Your task to perform on an android device: change notifications settings Image 0: 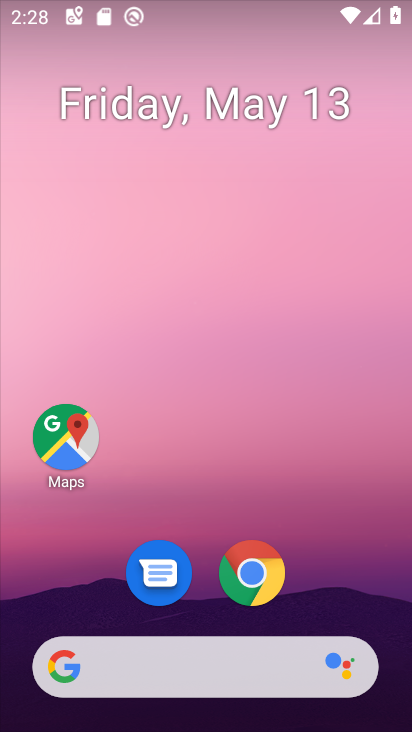
Step 0: drag from (369, 660) to (195, 155)
Your task to perform on an android device: change notifications settings Image 1: 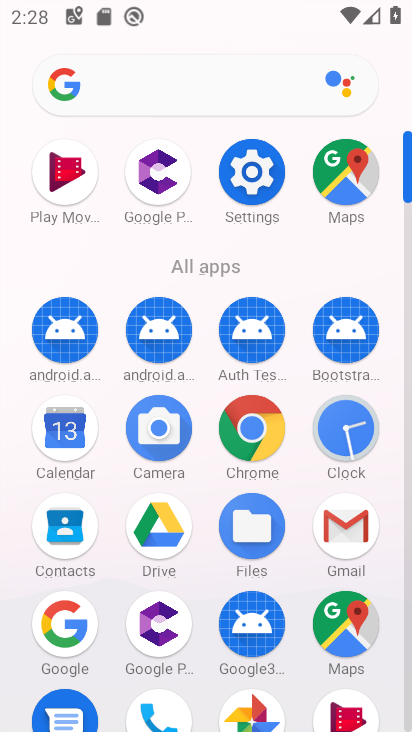
Step 1: drag from (342, 564) to (213, 95)
Your task to perform on an android device: change notifications settings Image 2: 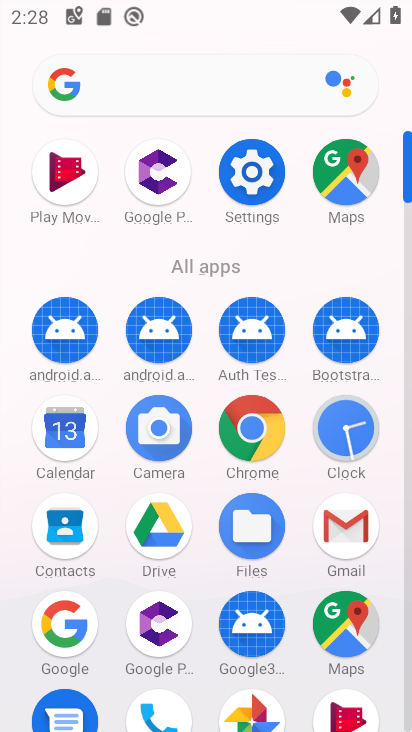
Step 2: click (247, 174)
Your task to perform on an android device: change notifications settings Image 3: 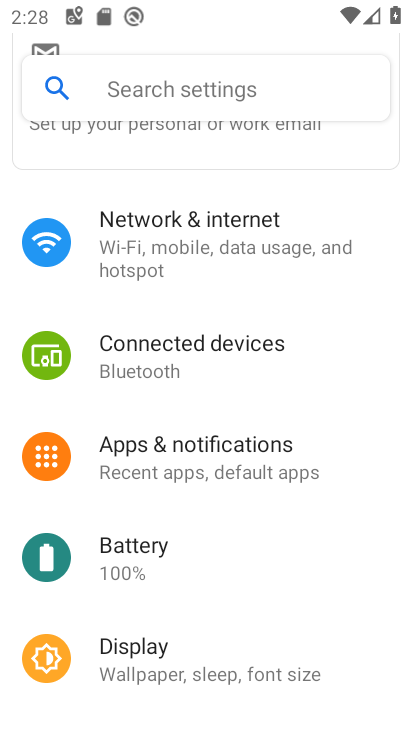
Step 3: click (179, 462)
Your task to perform on an android device: change notifications settings Image 4: 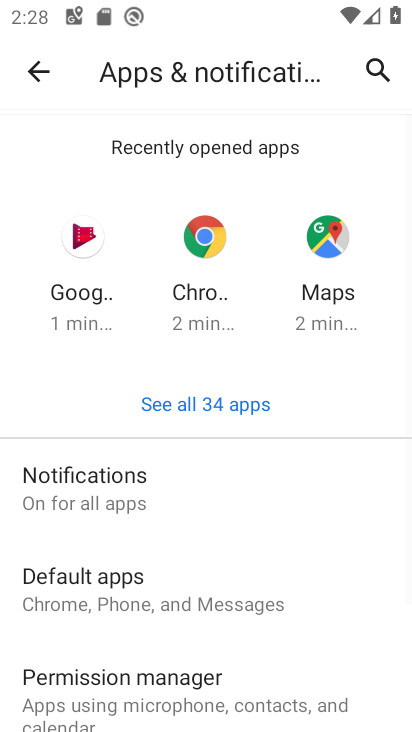
Step 4: drag from (130, 578) to (192, 147)
Your task to perform on an android device: change notifications settings Image 5: 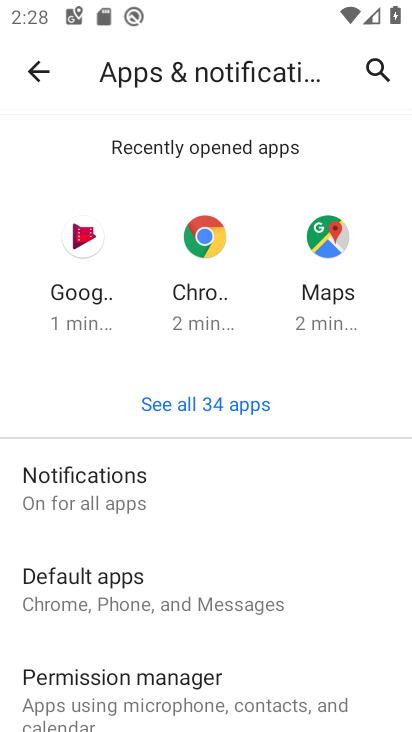
Step 5: drag from (223, 500) to (245, 46)
Your task to perform on an android device: change notifications settings Image 6: 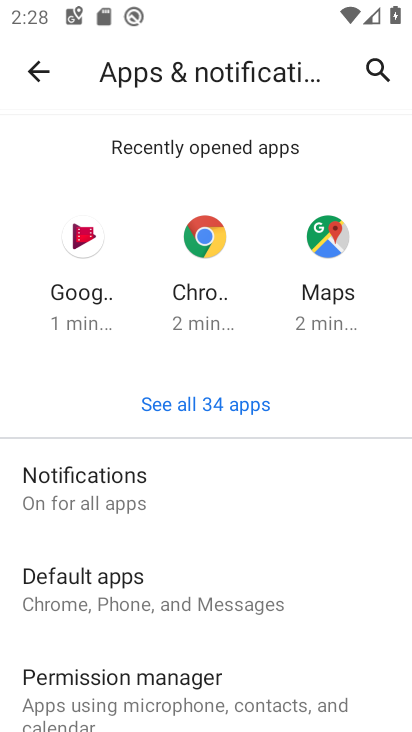
Step 6: drag from (191, 516) to (203, 95)
Your task to perform on an android device: change notifications settings Image 7: 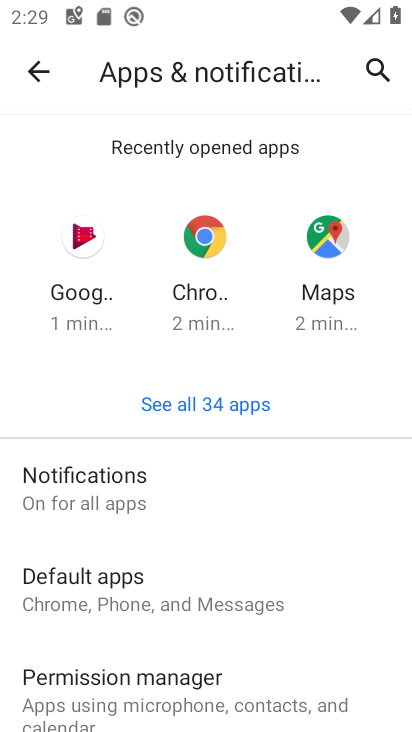
Step 7: click (62, 487)
Your task to perform on an android device: change notifications settings Image 8: 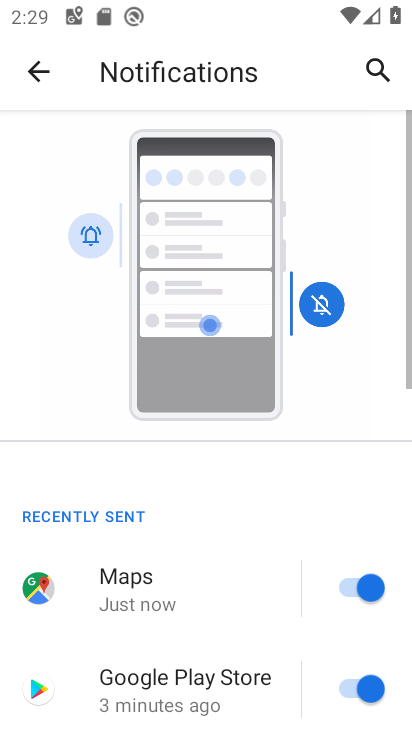
Step 8: drag from (132, 577) to (150, 92)
Your task to perform on an android device: change notifications settings Image 9: 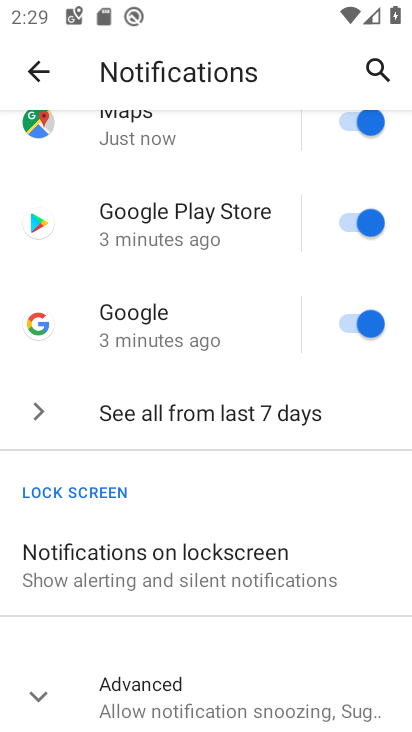
Step 9: click (170, 555)
Your task to perform on an android device: change notifications settings Image 10: 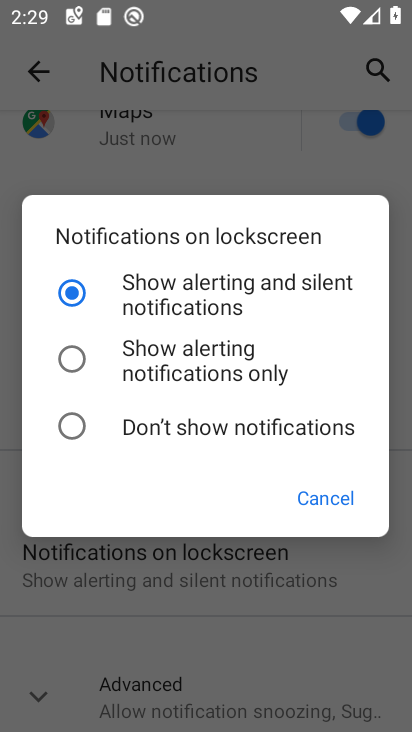
Step 10: click (215, 148)
Your task to perform on an android device: change notifications settings Image 11: 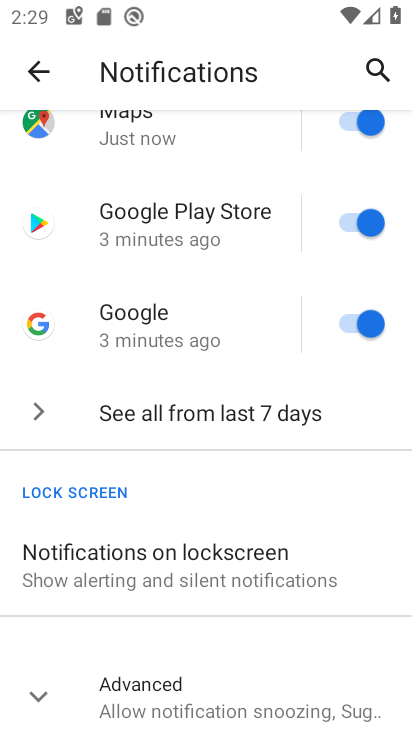
Step 11: click (317, 495)
Your task to perform on an android device: change notifications settings Image 12: 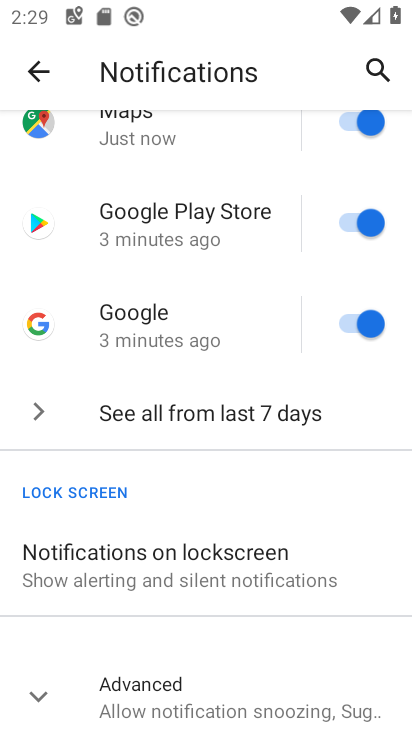
Step 12: drag from (207, 526) to (222, 590)
Your task to perform on an android device: change notifications settings Image 13: 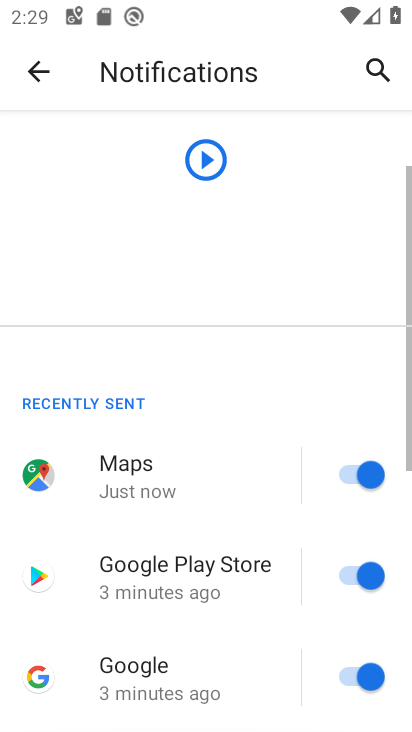
Step 13: drag from (227, 306) to (269, 652)
Your task to perform on an android device: change notifications settings Image 14: 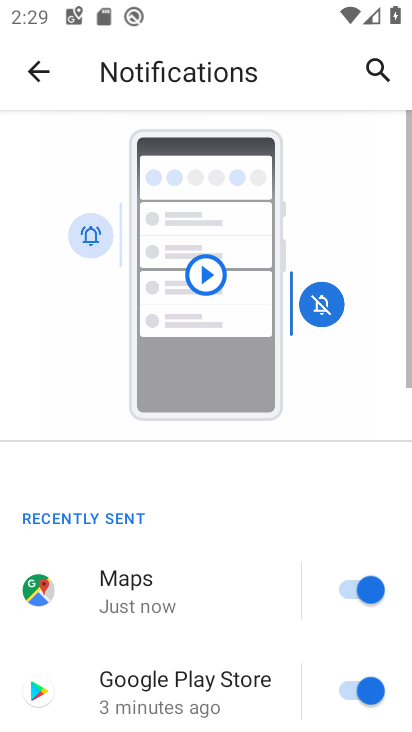
Step 14: drag from (161, 616) to (187, 138)
Your task to perform on an android device: change notifications settings Image 15: 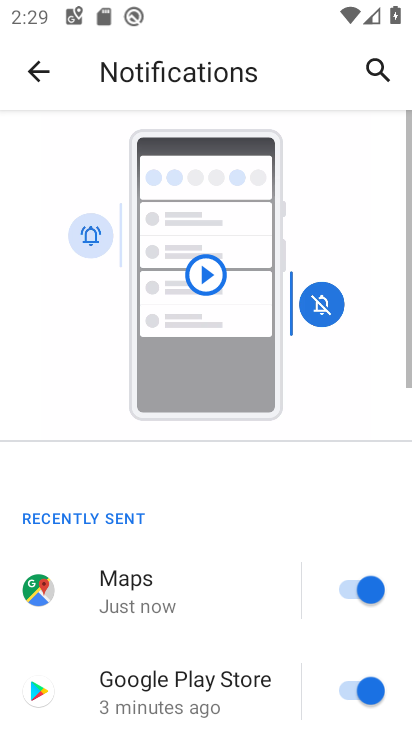
Step 15: drag from (211, 519) to (200, 220)
Your task to perform on an android device: change notifications settings Image 16: 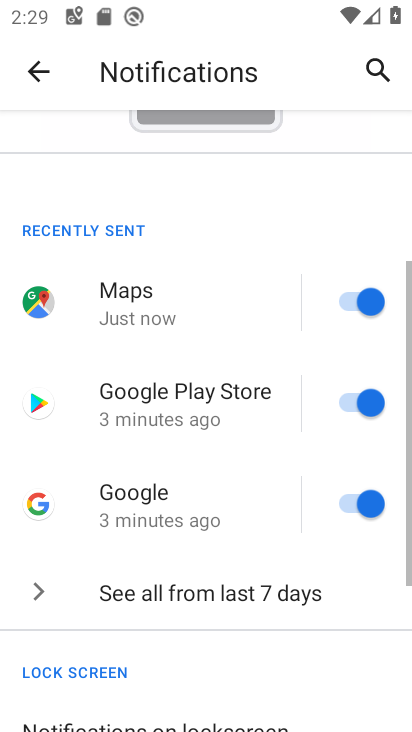
Step 16: drag from (212, 556) to (175, 99)
Your task to perform on an android device: change notifications settings Image 17: 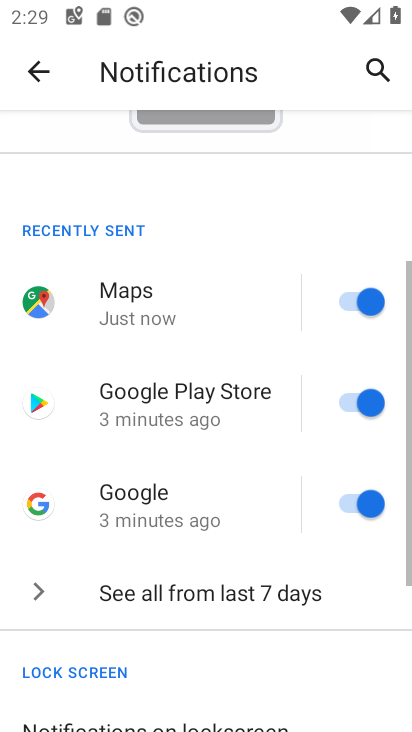
Step 17: drag from (254, 465) to (260, 96)
Your task to perform on an android device: change notifications settings Image 18: 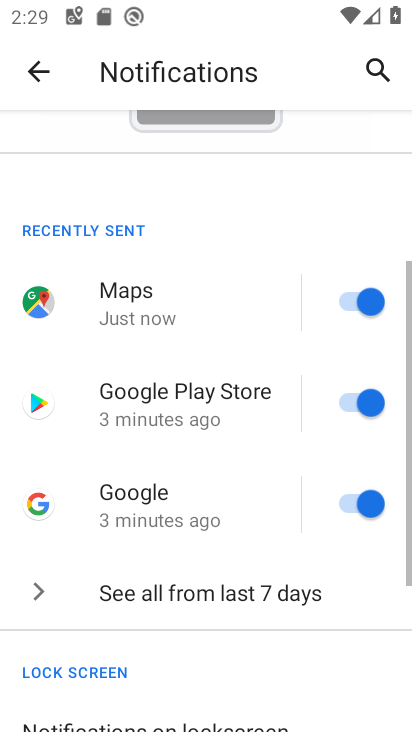
Step 18: drag from (70, 538) to (157, 90)
Your task to perform on an android device: change notifications settings Image 19: 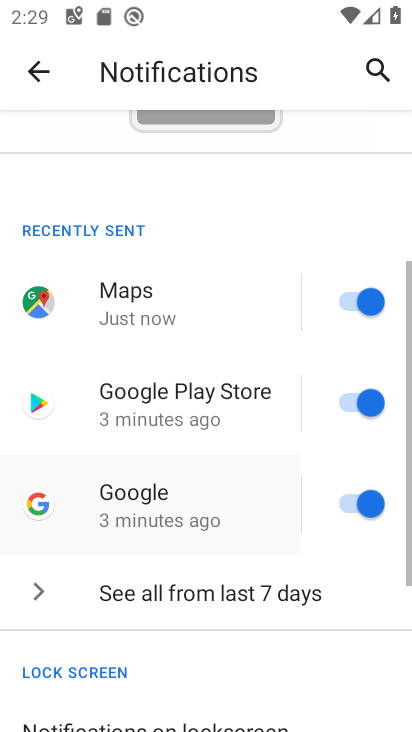
Step 19: drag from (121, 521) to (160, 4)
Your task to perform on an android device: change notifications settings Image 20: 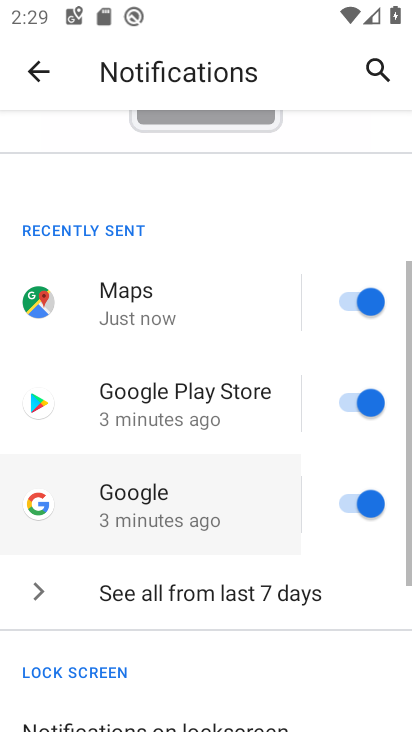
Step 20: drag from (152, 493) to (175, 58)
Your task to perform on an android device: change notifications settings Image 21: 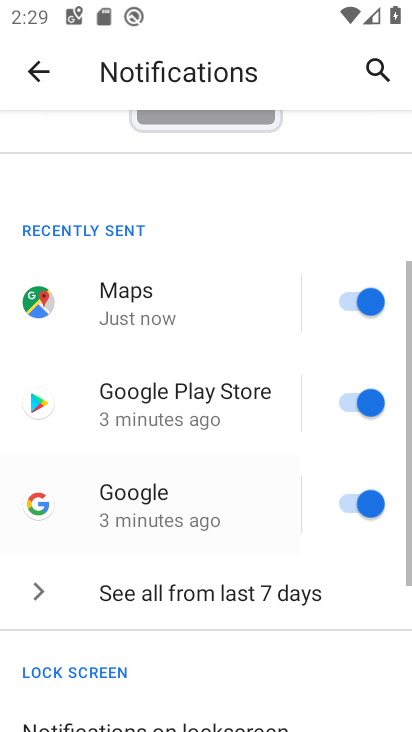
Step 21: drag from (128, 639) to (128, 5)
Your task to perform on an android device: change notifications settings Image 22: 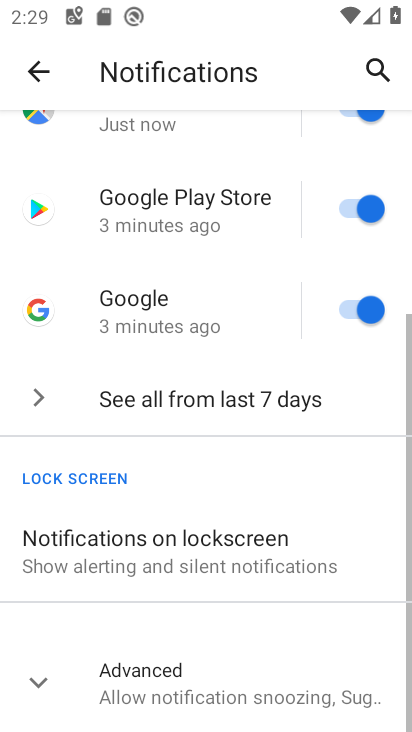
Step 22: click (137, 540)
Your task to perform on an android device: change notifications settings Image 23: 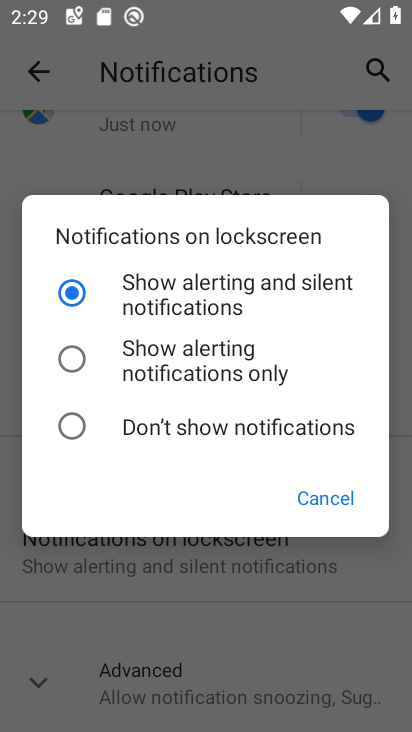
Step 23: click (66, 364)
Your task to perform on an android device: change notifications settings Image 24: 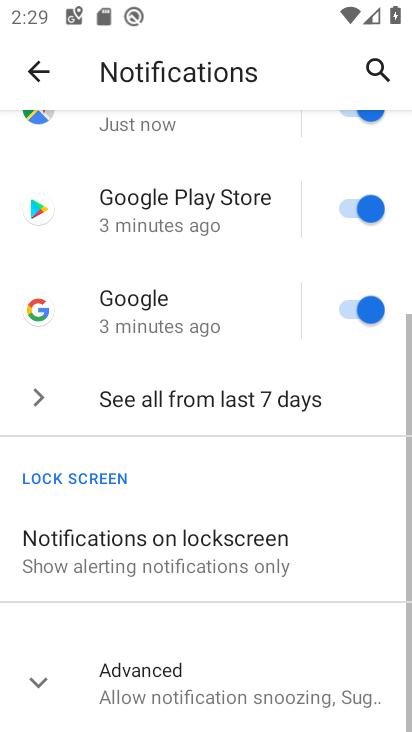
Step 24: drag from (264, 636) to (260, 169)
Your task to perform on an android device: change notifications settings Image 25: 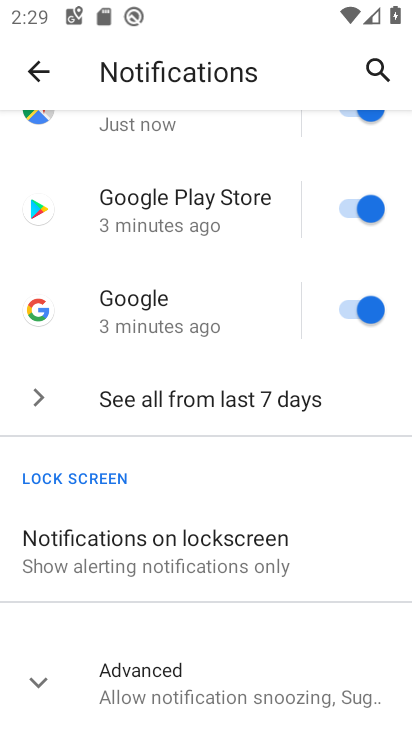
Step 25: drag from (192, 655) to (139, 233)
Your task to perform on an android device: change notifications settings Image 26: 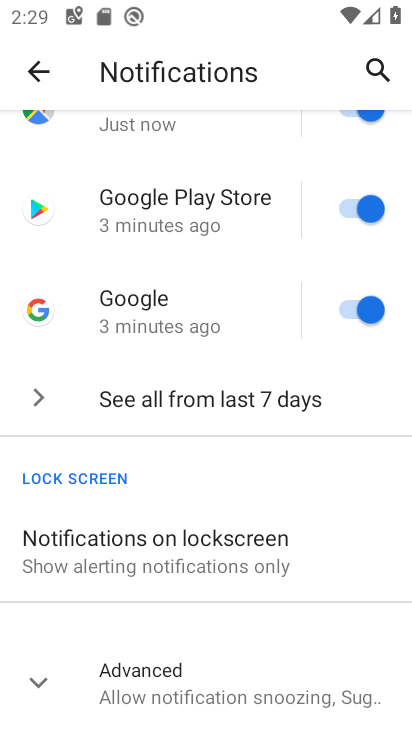
Step 26: drag from (153, 689) to (170, 647)
Your task to perform on an android device: change notifications settings Image 27: 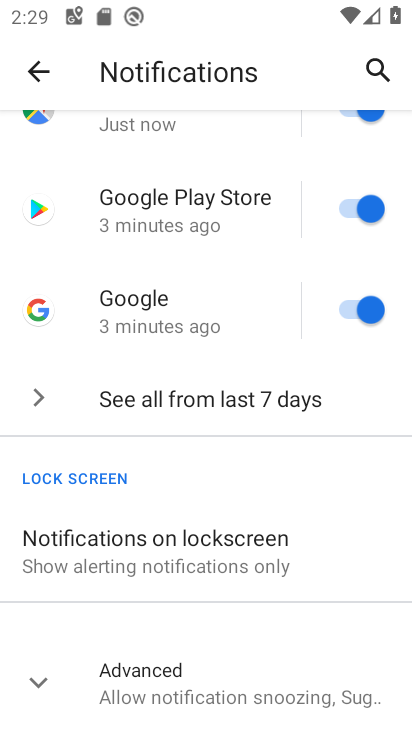
Step 27: click (150, 679)
Your task to perform on an android device: change notifications settings Image 28: 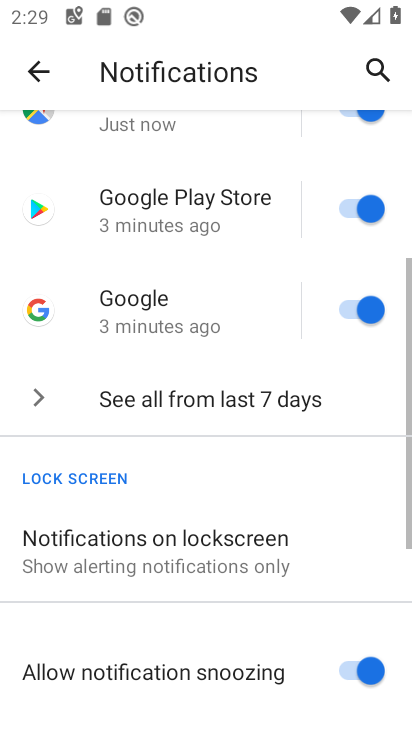
Step 28: click (195, 685)
Your task to perform on an android device: change notifications settings Image 29: 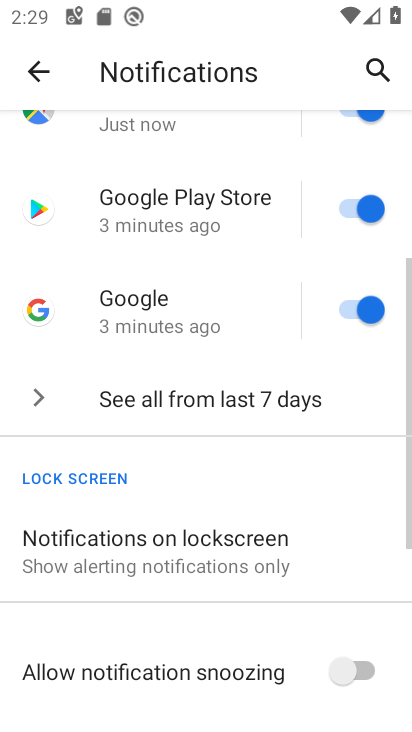
Step 29: drag from (210, 655) to (233, 199)
Your task to perform on an android device: change notifications settings Image 30: 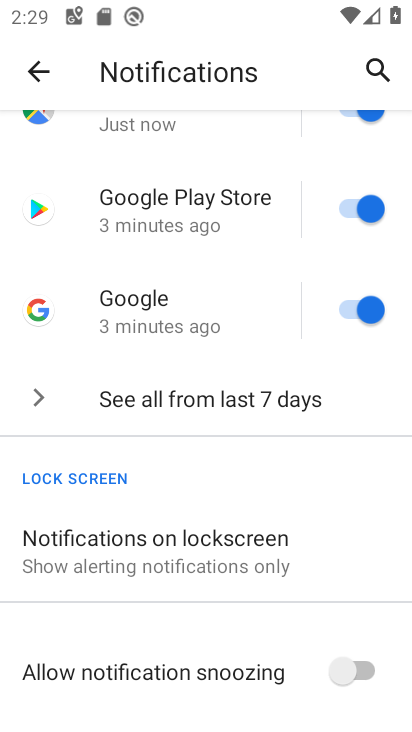
Step 30: drag from (257, 665) to (251, 288)
Your task to perform on an android device: change notifications settings Image 31: 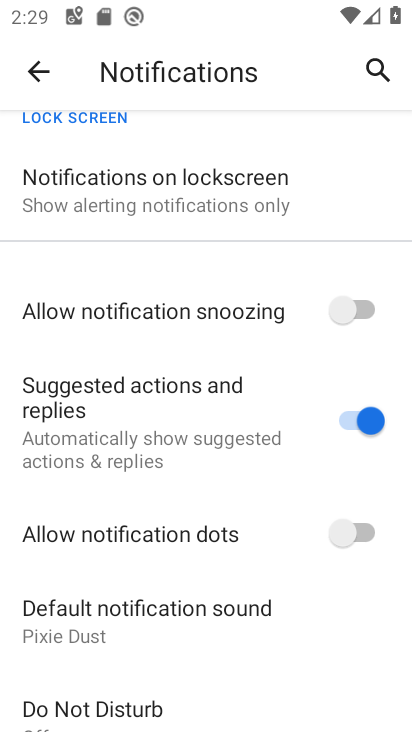
Step 31: click (351, 526)
Your task to perform on an android device: change notifications settings Image 32: 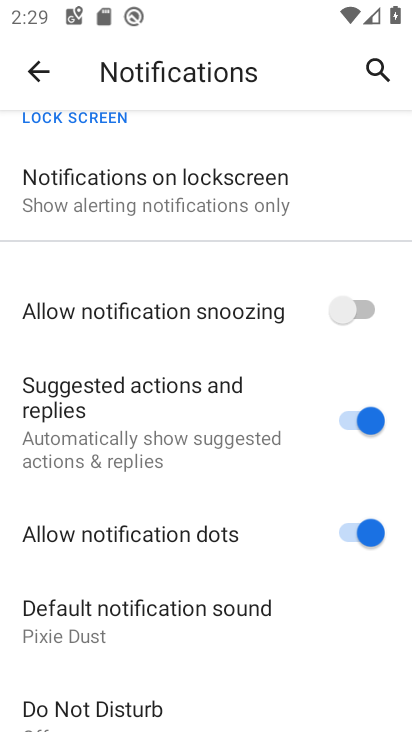
Step 32: task complete